Your task to perform on an android device: see creations saved in the google photos Image 0: 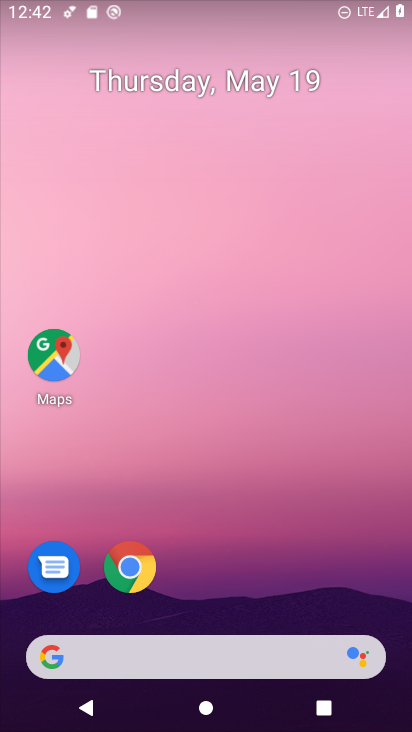
Step 0: drag from (239, 554) to (211, 65)
Your task to perform on an android device: see creations saved in the google photos Image 1: 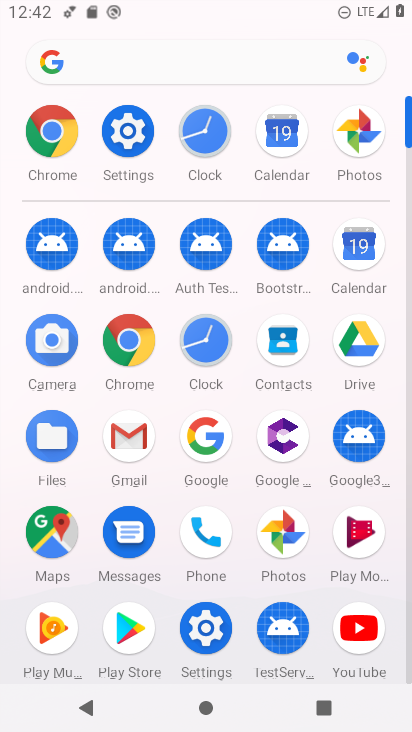
Step 1: click (354, 127)
Your task to perform on an android device: see creations saved in the google photos Image 2: 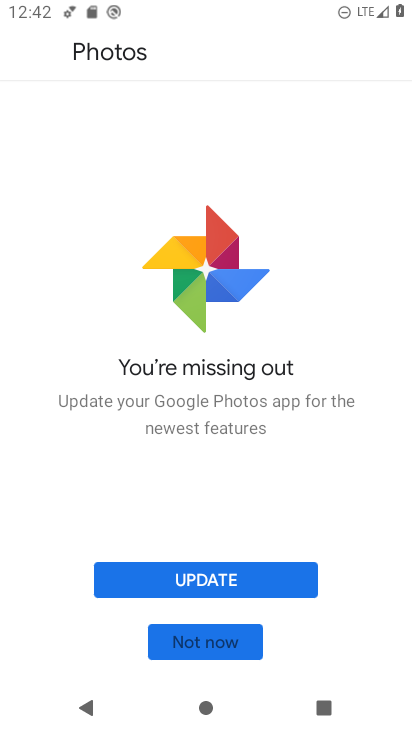
Step 2: click (230, 650)
Your task to perform on an android device: see creations saved in the google photos Image 3: 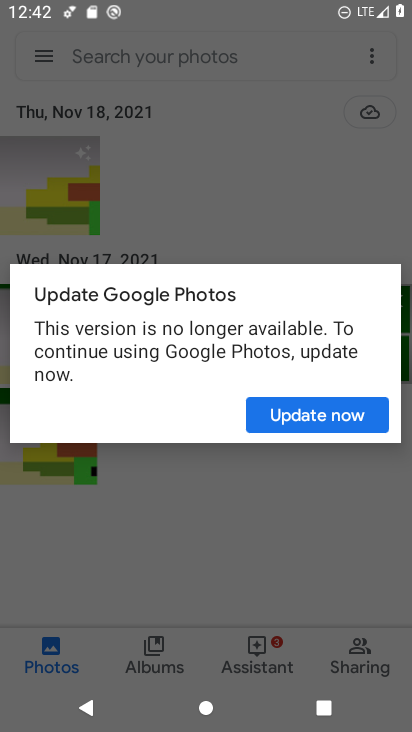
Step 3: click (370, 415)
Your task to perform on an android device: see creations saved in the google photos Image 4: 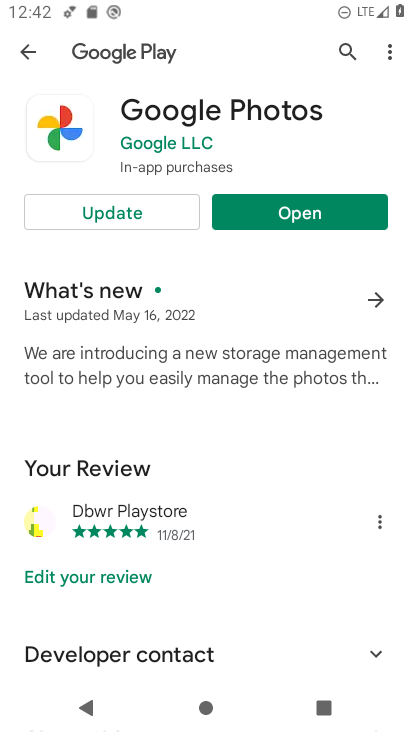
Step 4: click (310, 207)
Your task to perform on an android device: see creations saved in the google photos Image 5: 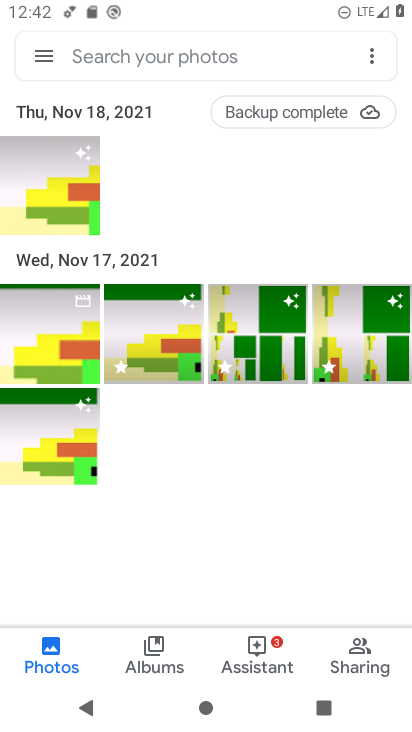
Step 5: click (205, 56)
Your task to perform on an android device: see creations saved in the google photos Image 6: 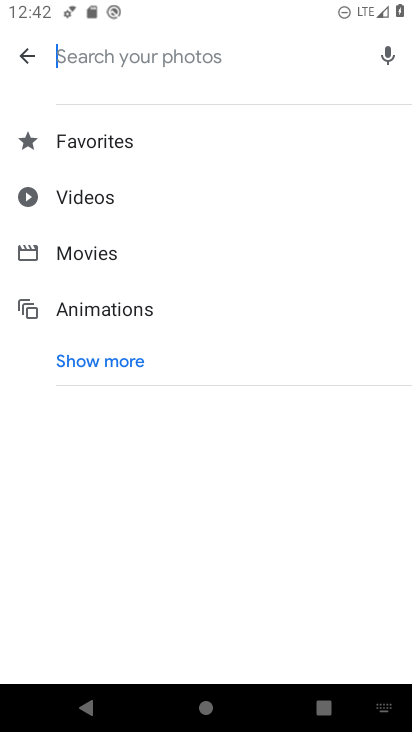
Step 6: click (134, 355)
Your task to perform on an android device: see creations saved in the google photos Image 7: 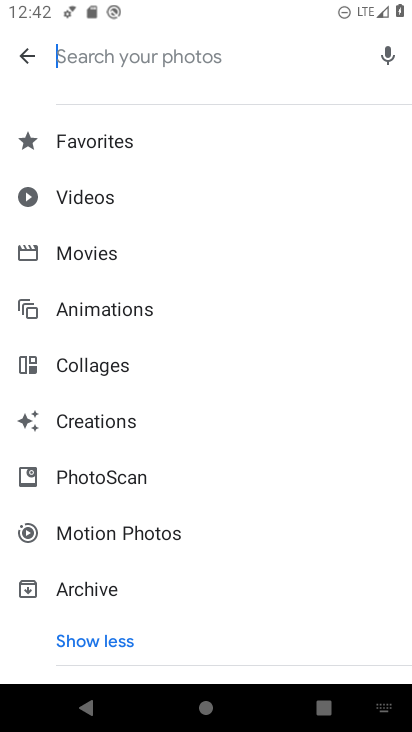
Step 7: click (118, 412)
Your task to perform on an android device: see creations saved in the google photos Image 8: 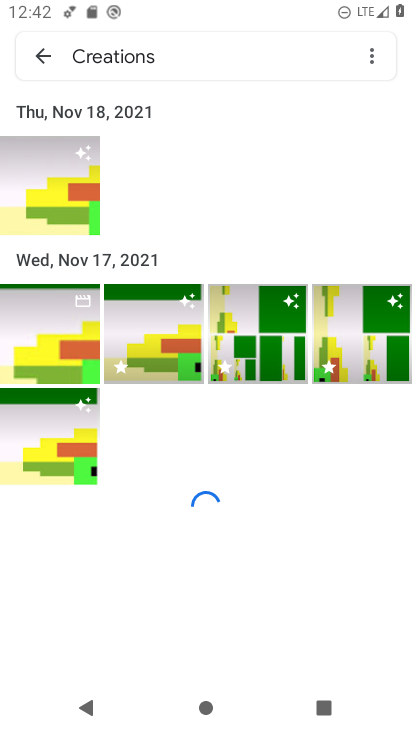
Step 8: task complete